Your task to perform on an android device: toggle javascript in the chrome app Image 0: 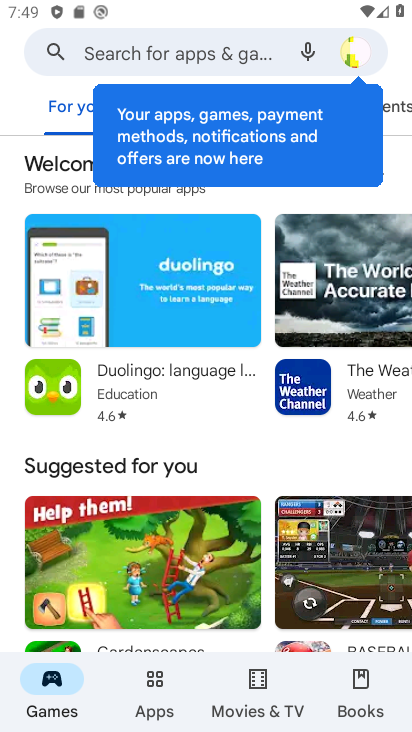
Step 0: press home button
Your task to perform on an android device: toggle javascript in the chrome app Image 1: 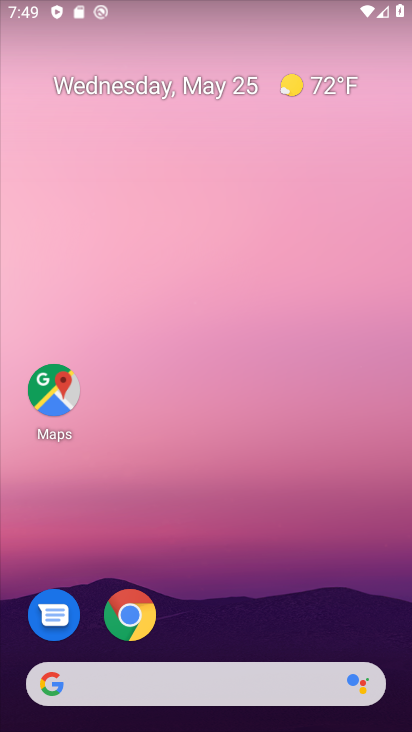
Step 1: click (139, 637)
Your task to perform on an android device: toggle javascript in the chrome app Image 2: 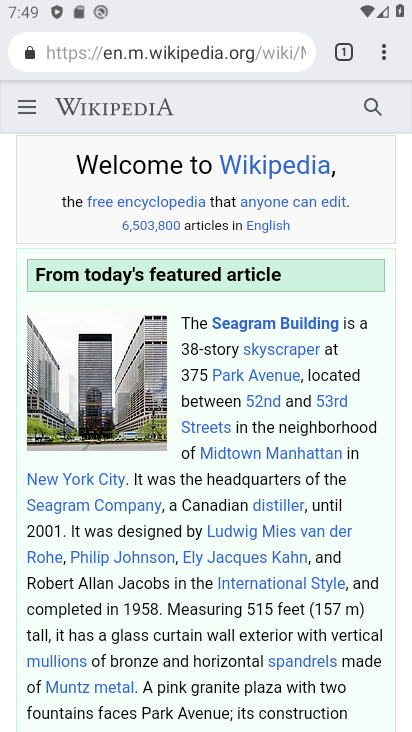
Step 2: click (383, 53)
Your task to perform on an android device: toggle javascript in the chrome app Image 3: 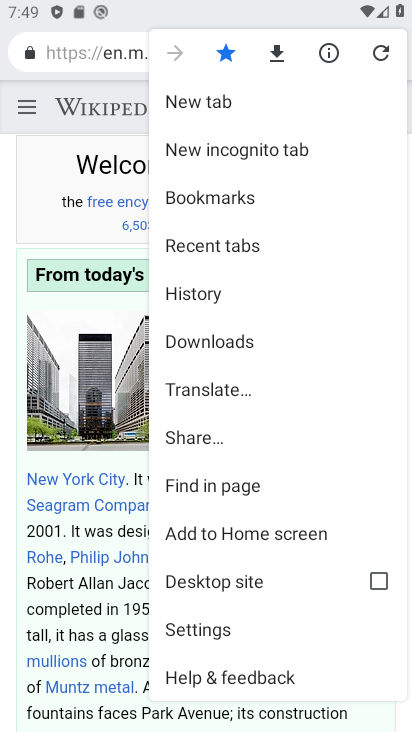
Step 3: click (222, 617)
Your task to perform on an android device: toggle javascript in the chrome app Image 4: 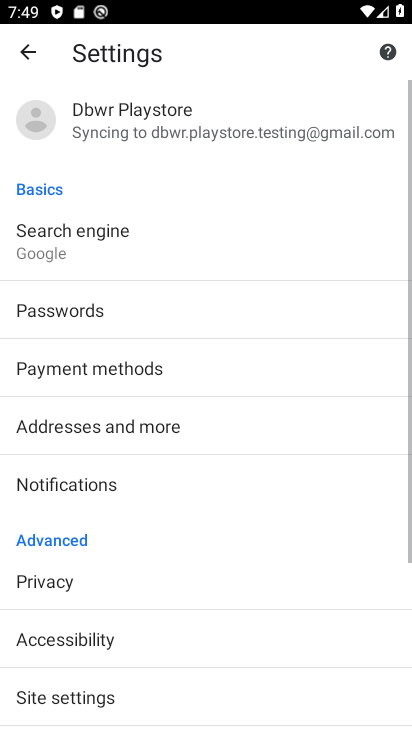
Step 4: click (207, 696)
Your task to perform on an android device: toggle javascript in the chrome app Image 5: 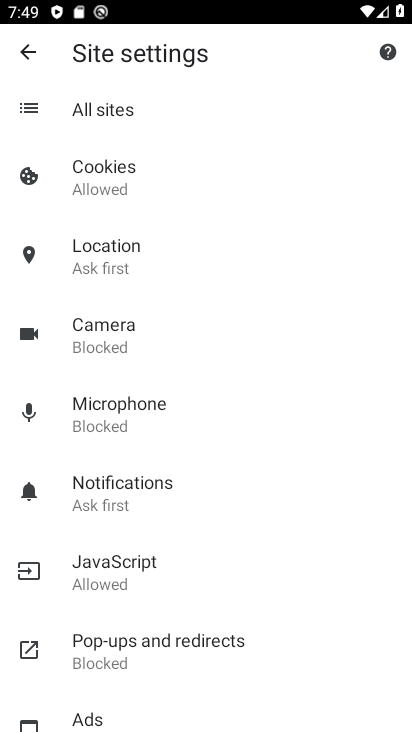
Step 5: click (218, 561)
Your task to perform on an android device: toggle javascript in the chrome app Image 6: 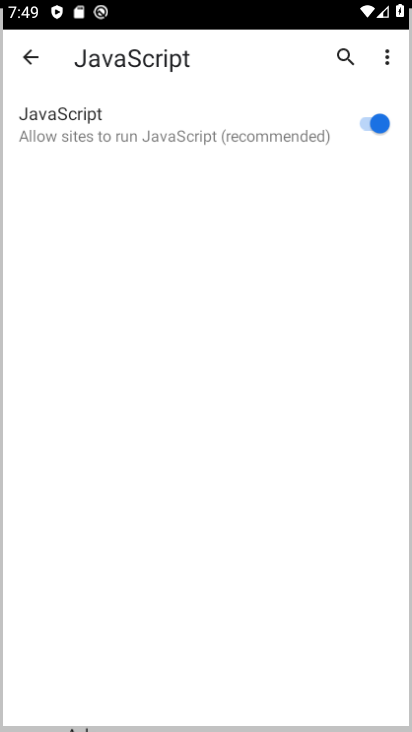
Step 6: click (156, 573)
Your task to perform on an android device: toggle javascript in the chrome app Image 7: 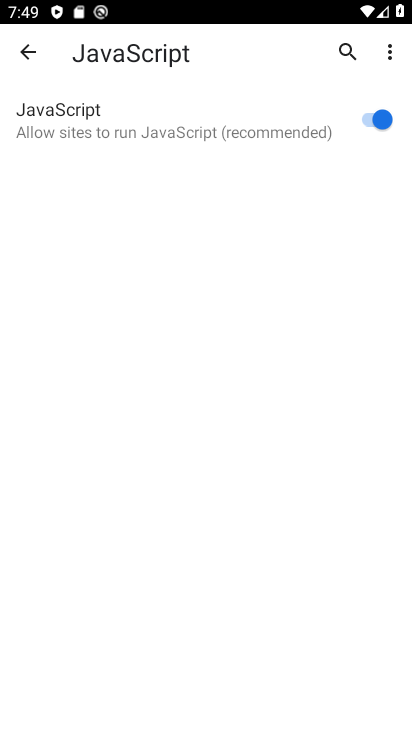
Step 7: click (370, 110)
Your task to perform on an android device: toggle javascript in the chrome app Image 8: 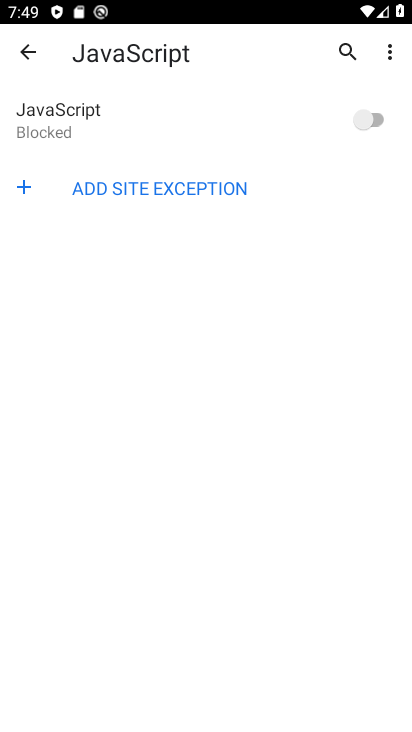
Step 8: task complete